Your task to perform on an android device: check data usage Image 0: 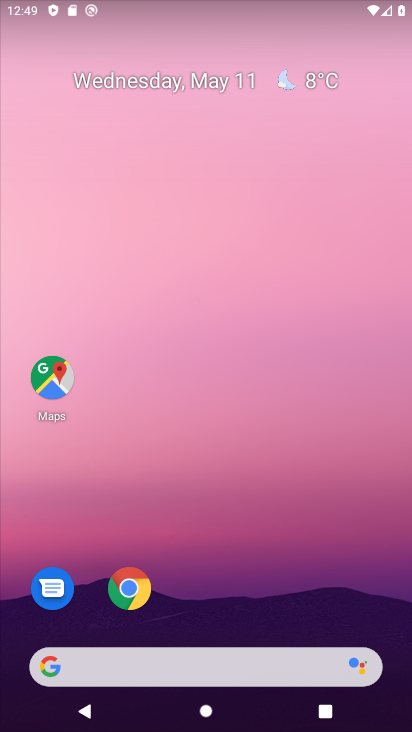
Step 0: click (138, 596)
Your task to perform on an android device: check data usage Image 1: 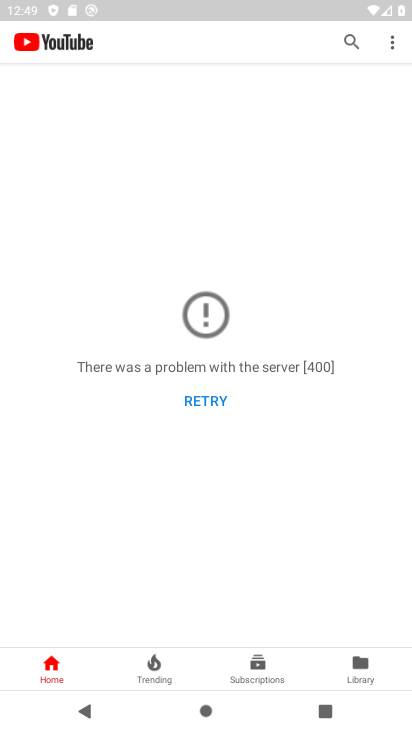
Step 1: press home button
Your task to perform on an android device: check data usage Image 2: 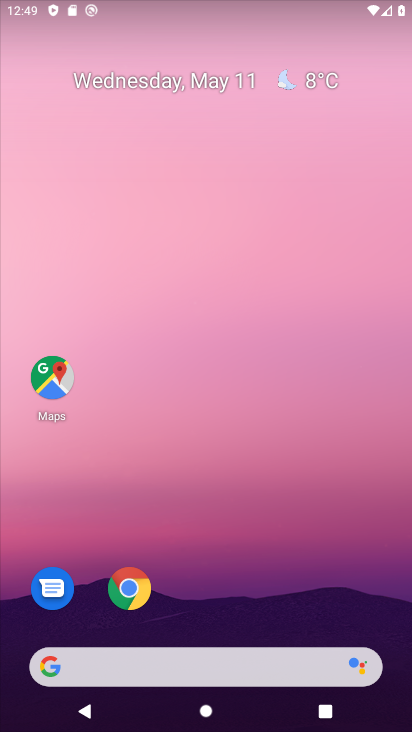
Step 2: drag from (260, 600) to (301, 216)
Your task to perform on an android device: check data usage Image 3: 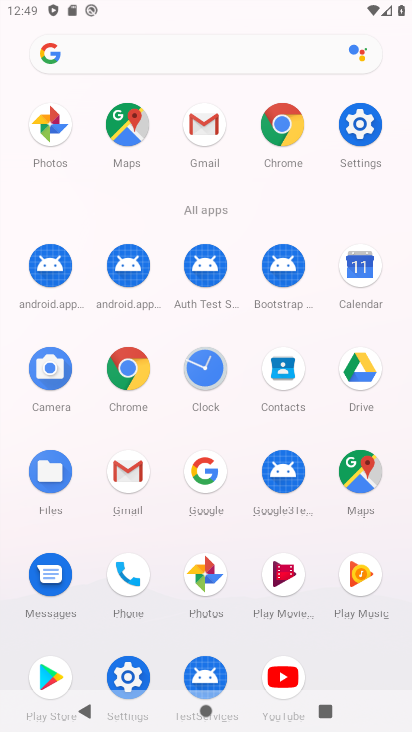
Step 3: click (364, 141)
Your task to perform on an android device: check data usage Image 4: 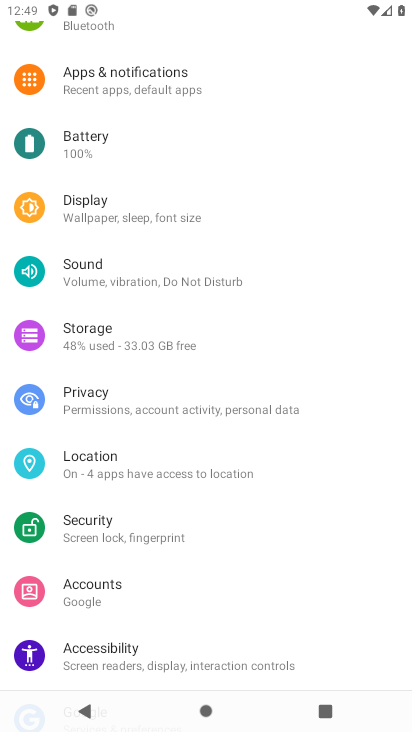
Step 4: drag from (215, 115) to (246, 535)
Your task to perform on an android device: check data usage Image 5: 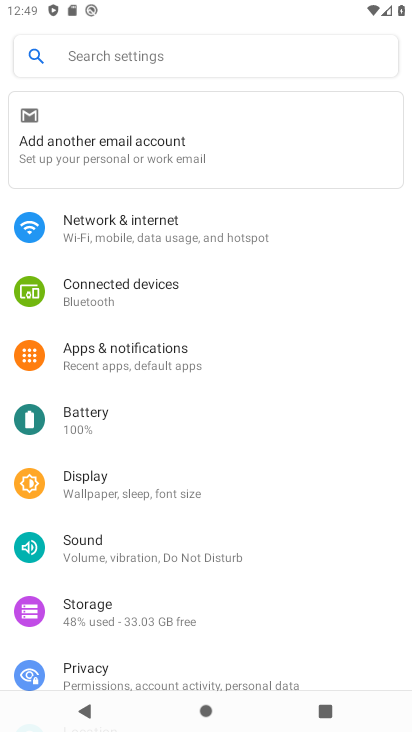
Step 5: click (260, 229)
Your task to perform on an android device: check data usage Image 6: 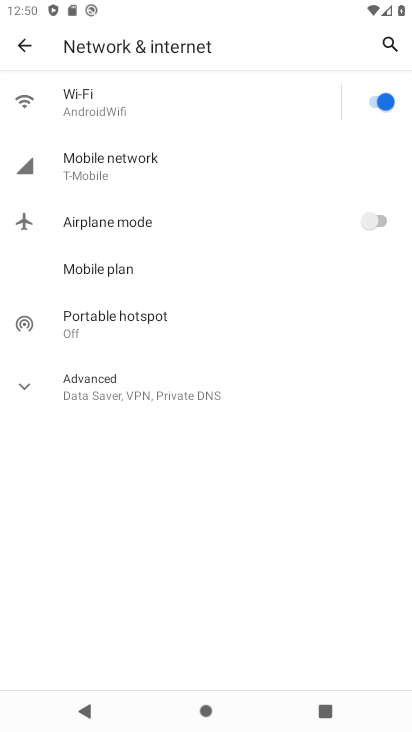
Step 6: click (146, 164)
Your task to perform on an android device: check data usage Image 7: 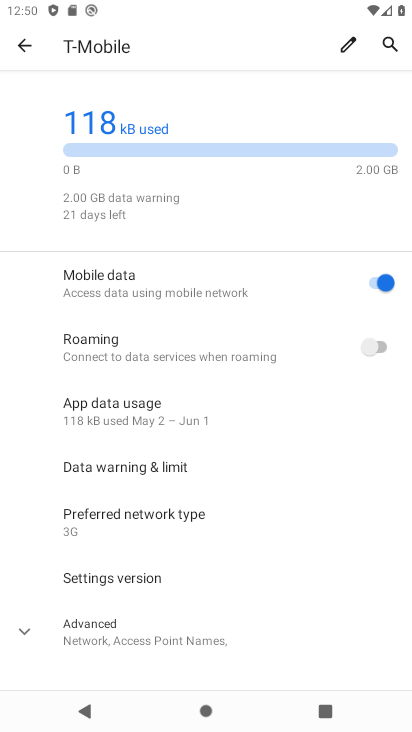
Step 7: task complete